Your task to perform on an android device: open app "VLC for Android" (install if not already installed) and go to login screen Image 0: 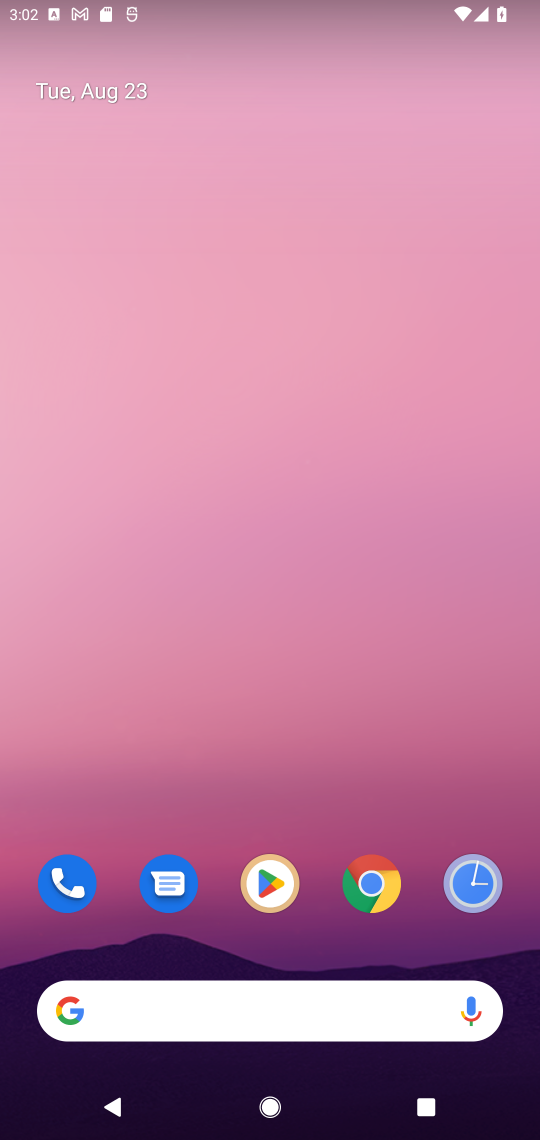
Step 0: press home button
Your task to perform on an android device: open app "VLC for Android" (install if not already installed) and go to login screen Image 1: 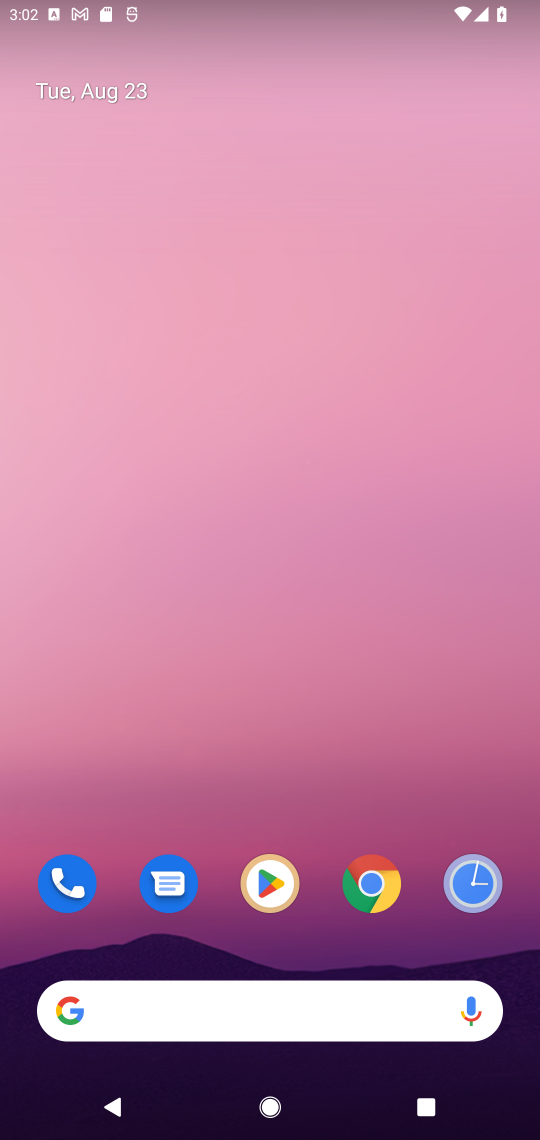
Step 1: drag from (184, 970) to (184, 324)
Your task to perform on an android device: open app "VLC for Android" (install if not already installed) and go to login screen Image 2: 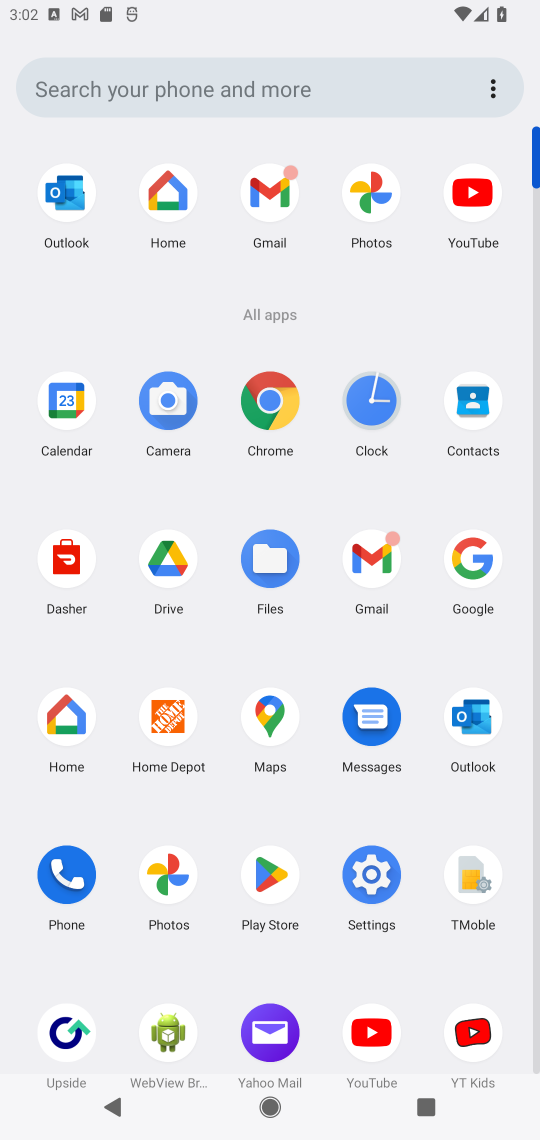
Step 2: click (274, 883)
Your task to perform on an android device: open app "VLC for Android" (install if not already installed) and go to login screen Image 3: 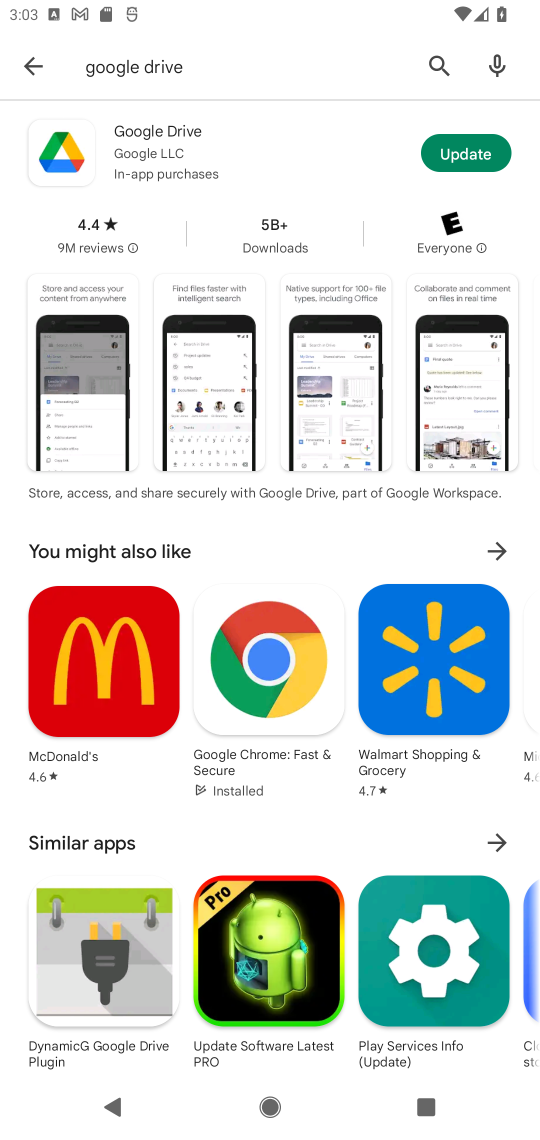
Step 3: click (431, 63)
Your task to perform on an android device: open app "VLC for Android" (install if not already installed) and go to login screen Image 4: 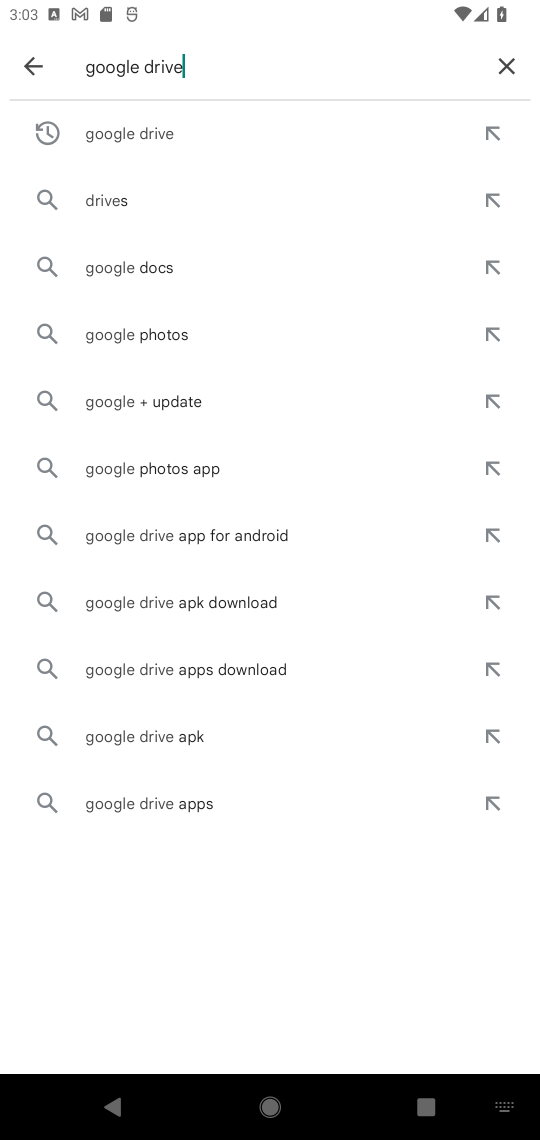
Step 4: click (508, 69)
Your task to perform on an android device: open app "VLC for Android" (install if not already installed) and go to login screen Image 5: 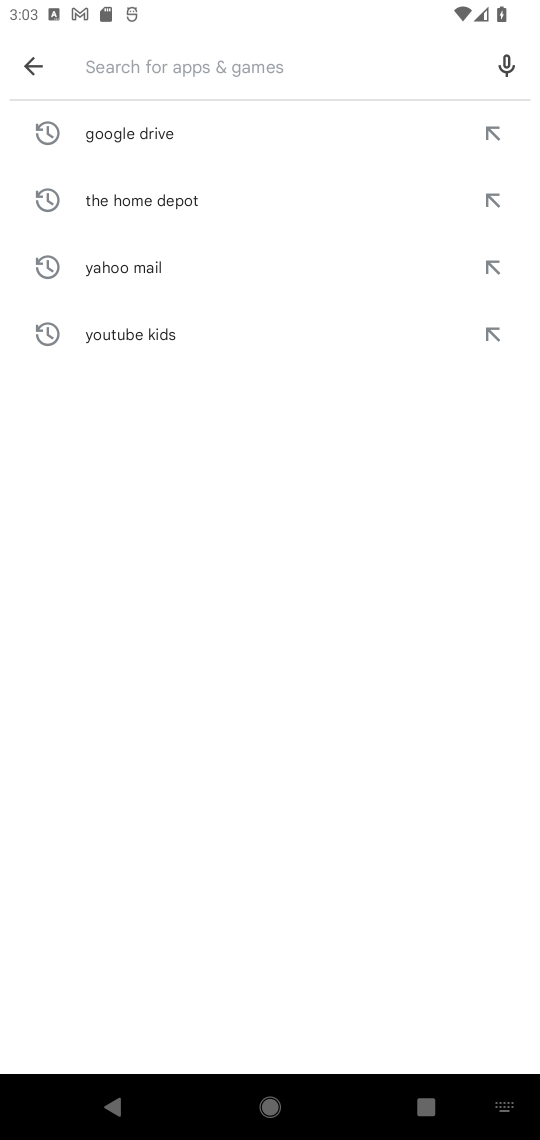
Step 5: type "VLC for Android"
Your task to perform on an android device: open app "VLC for Android" (install if not already installed) and go to login screen Image 6: 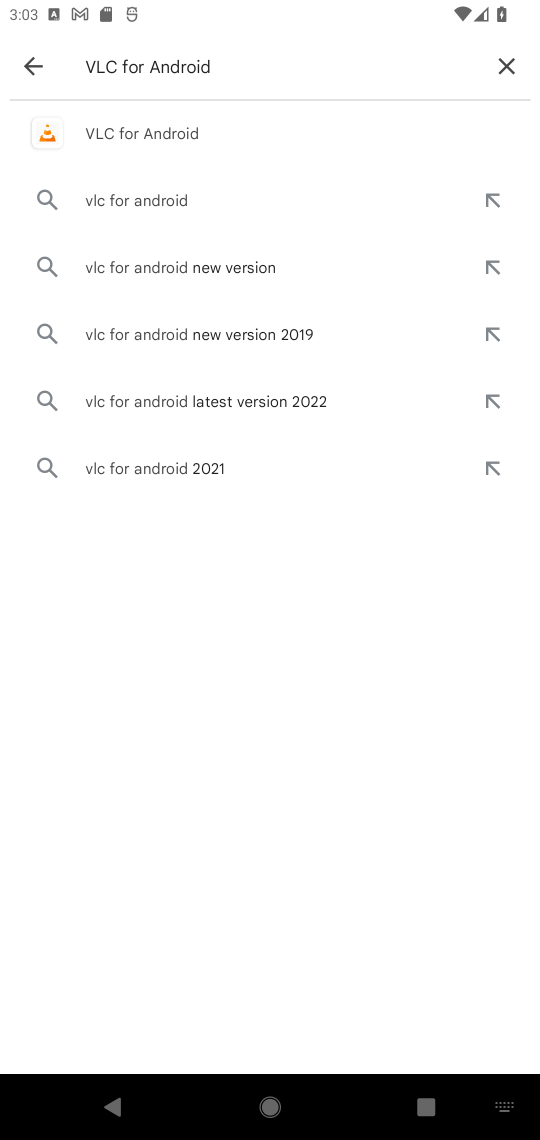
Step 6: click (141, 137)
Your task to perform on an android device: open app "VLC for Android" (install if not already installed) and go to login screen Image 7: 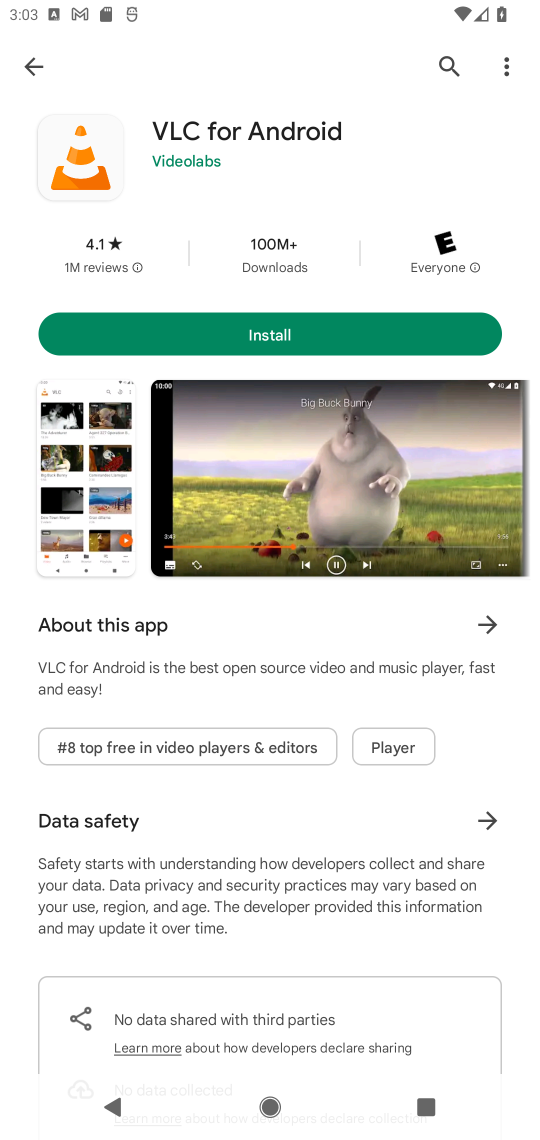
Step 7: click (169, 330)
Your task to perform on an android device: open app "VLC for Android" (install if not already installed) and go to login screen Image 8: 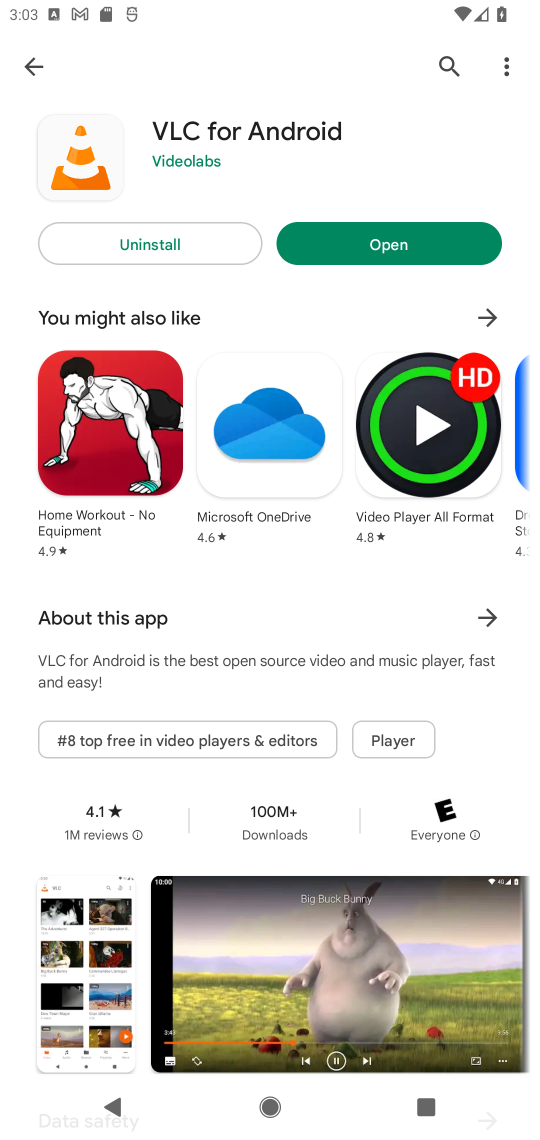
Step 8: click (318, 236)
Your task to perform on an android device: open app "VLC for Android" (install if not already installed) and go to login screen Image 9: 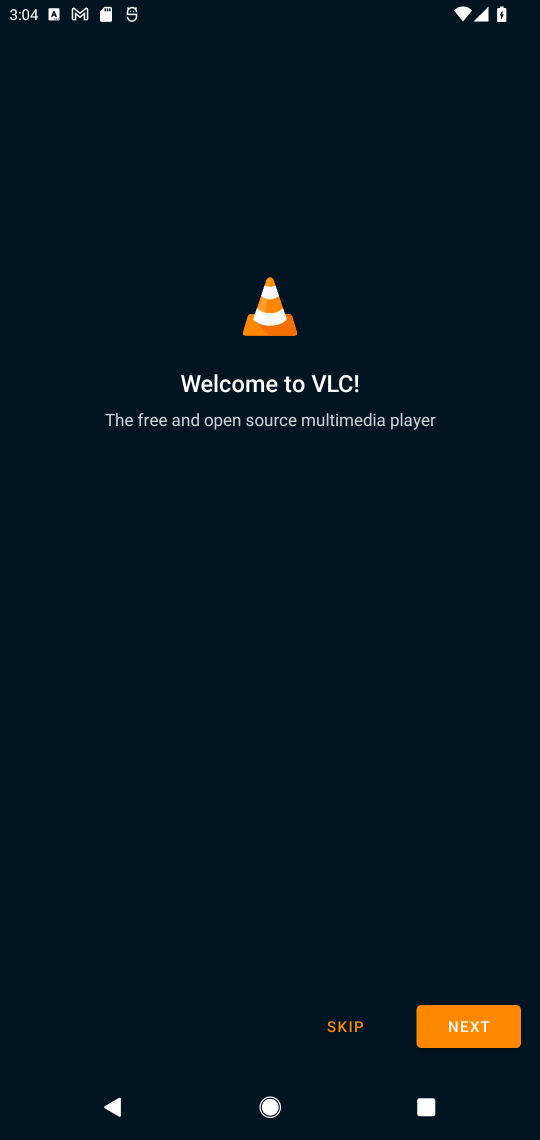
Step 9: task complete